Your task to perform on an android device: visit the assistant section in the google photos Image 0: 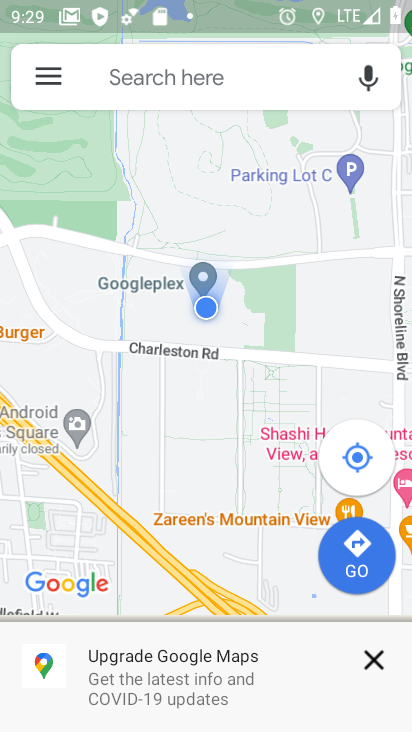
Step 0: press home button
Your task to perform on an android device: visit the assistant section in the google photos Image 1: 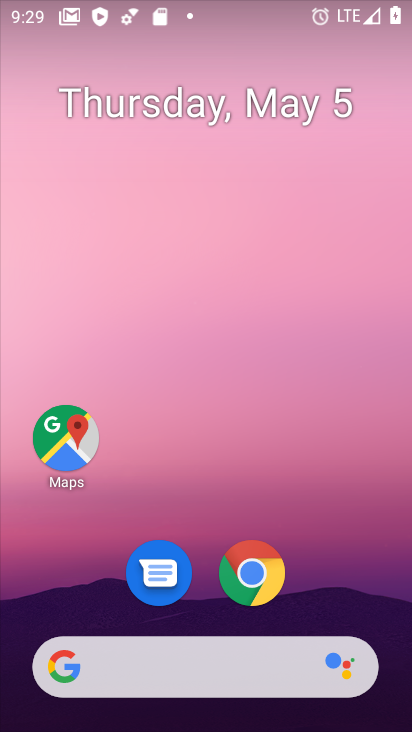
Step 1: drag from (114, 632) to (164, 73)
Your task to perform on an android device: visit the assistant section in the google photos Image 2: 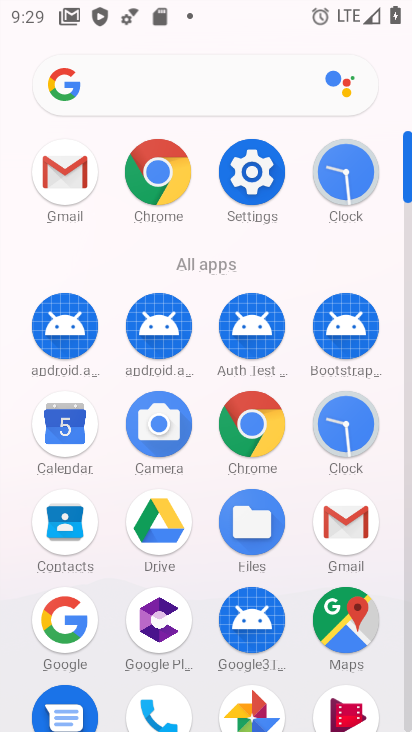
Step 2: click (249, 708)
Your task to perform on an android device: visit the assistant section in the google photos Image 3: 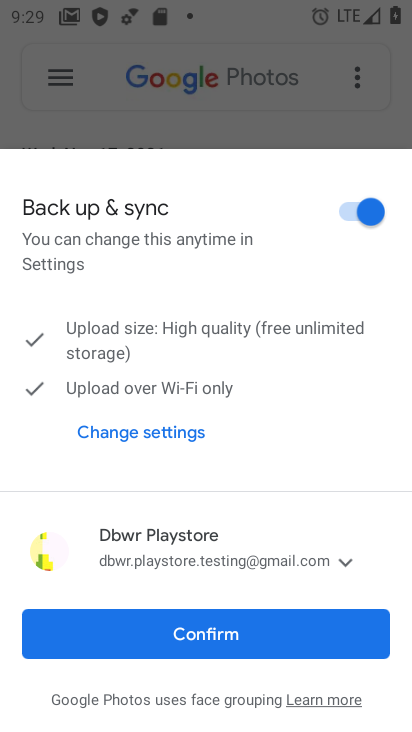
Step 3: click (210, 638)
Your task to perform on an android device: visit the assistant section in the google photos Image 4: 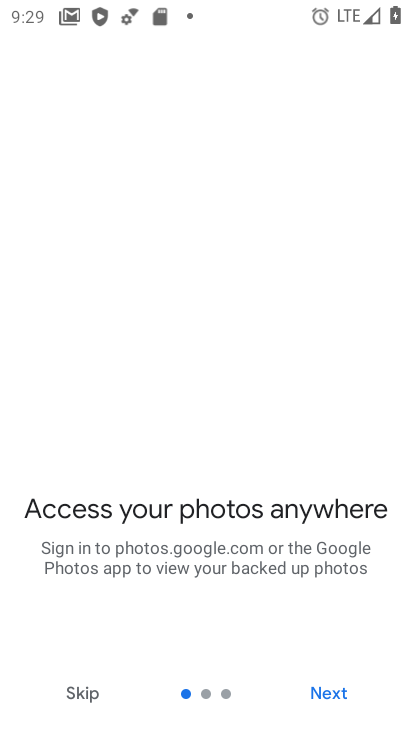
Step 4: click (335, 697)
Your task to perform on an android device: visit the assistant section in the google photos Image 5: 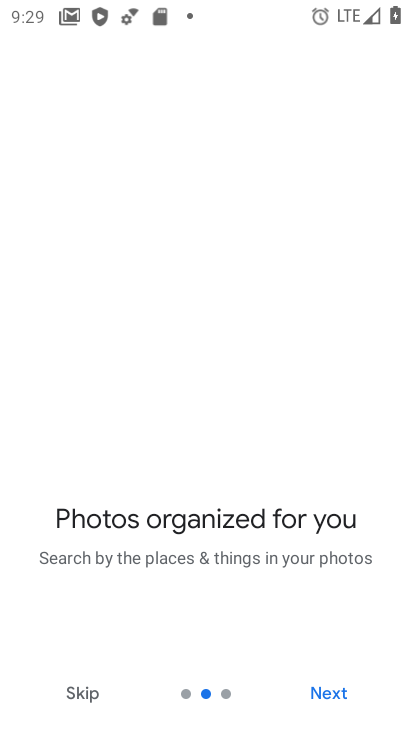
Step 5: click (335, 697)
Your task to perform on an android device: visit the assistant section in the google photos Image 6: 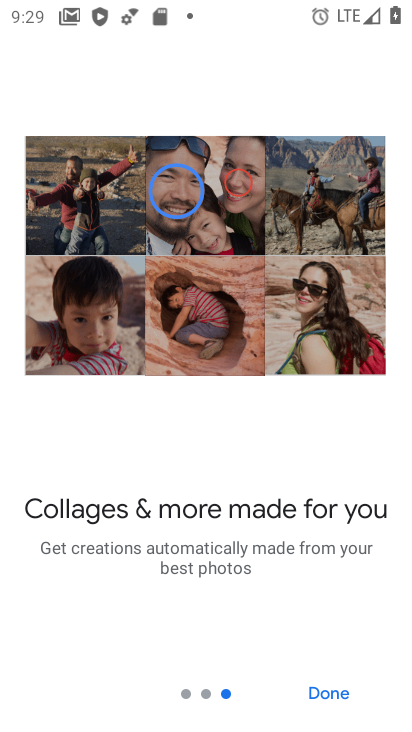
Step 6: click (335, 697)
Your task to perform on an android device: visit the assistant section in the google photos Image 7: 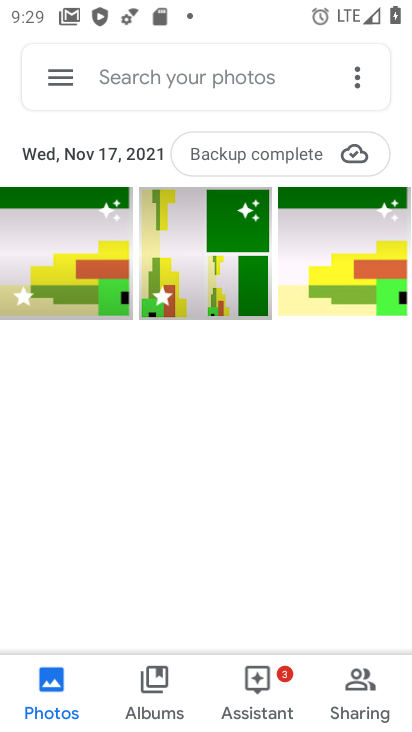
Step 7: click (255, 676)
Your task to perform on an android device: visit the assistant section in the google photos Image 8: 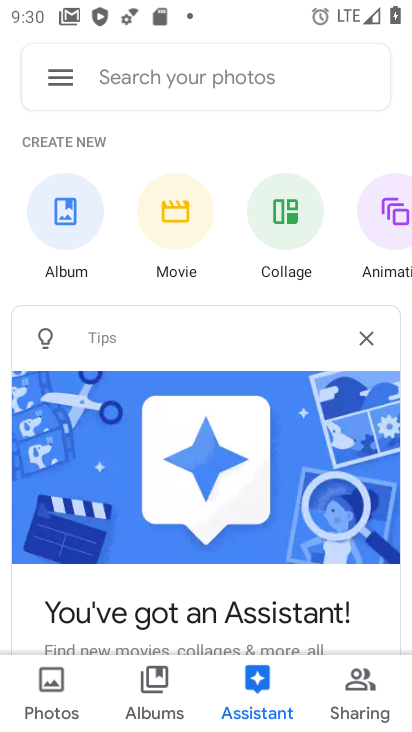
Step 8: click (261, 705)
Your task to perform on an android device: visit the assistant section in the google photos Image 9: 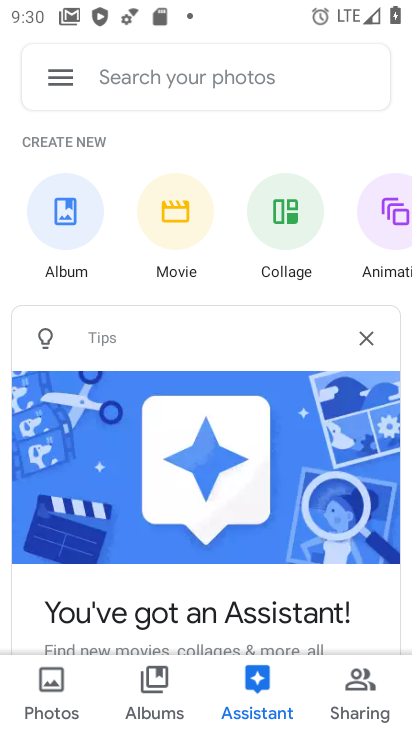
Step 9: task complete